Your task to perform on an android device: toggle translation in the chrome app Image 0: 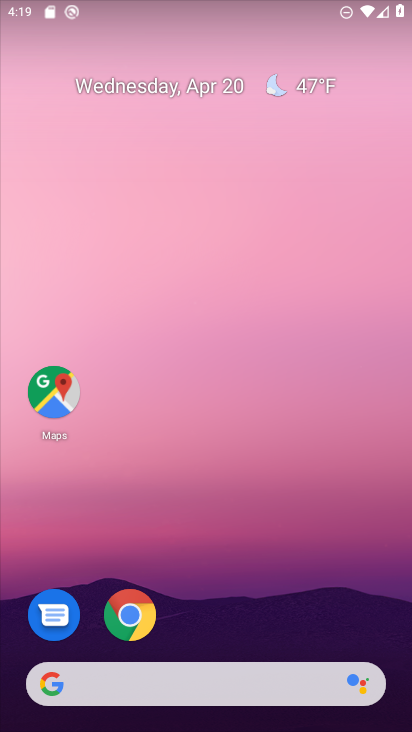
Step 0: click (135, 624)
Your task to perform on an android device: toggle translation in the chrome app Image 1: 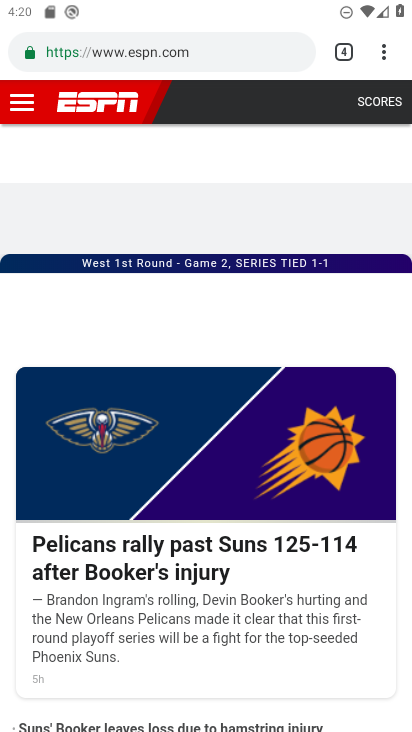
Step 1: click (383, 45)
Your task to perform on an android device: toggle translation in the chrome app Image 2: 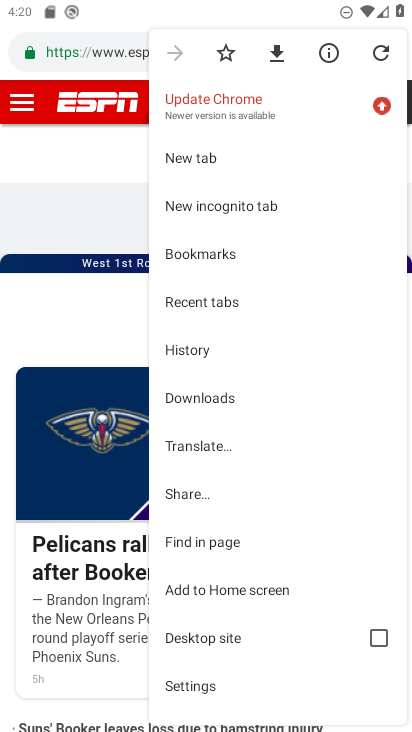
Step 2: click (206, 679)
Your task to perform on an android device: toggle translation in the chrome app Image 3: 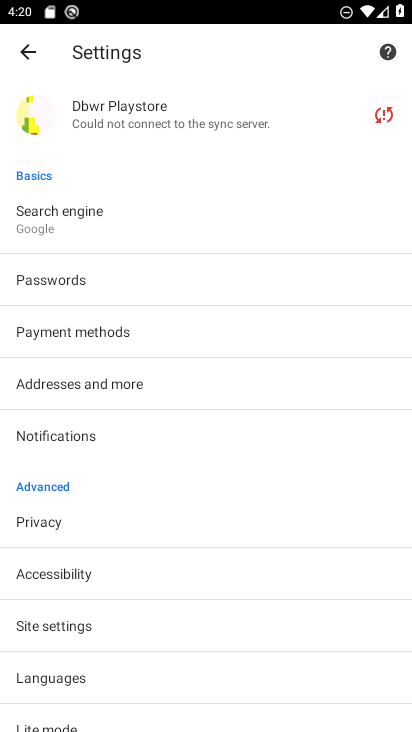
Step 3: click (57, 671)
Your task to perform on an android device: toggle translation in the chrome app Image 4: 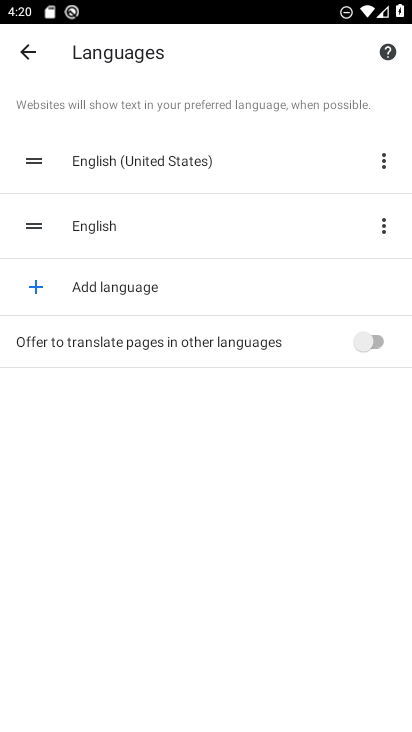
Step 4: click (375, 339)
Your task to perform on an android device: toggle translation in the chrome app Image 5: 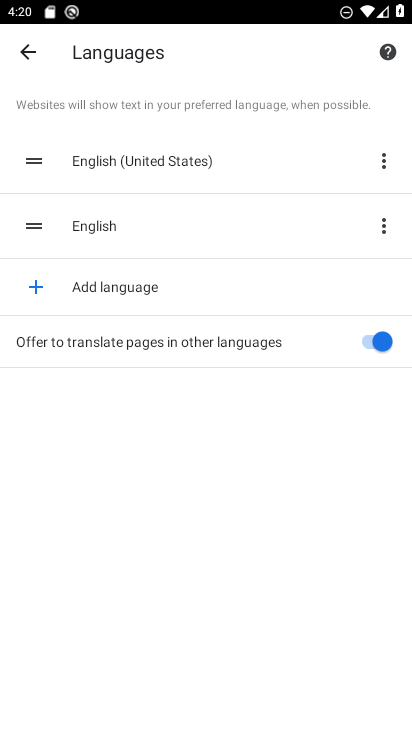
Step 5: task complete